Your task to perform on an android device: What's on my calendar today? Image 0: 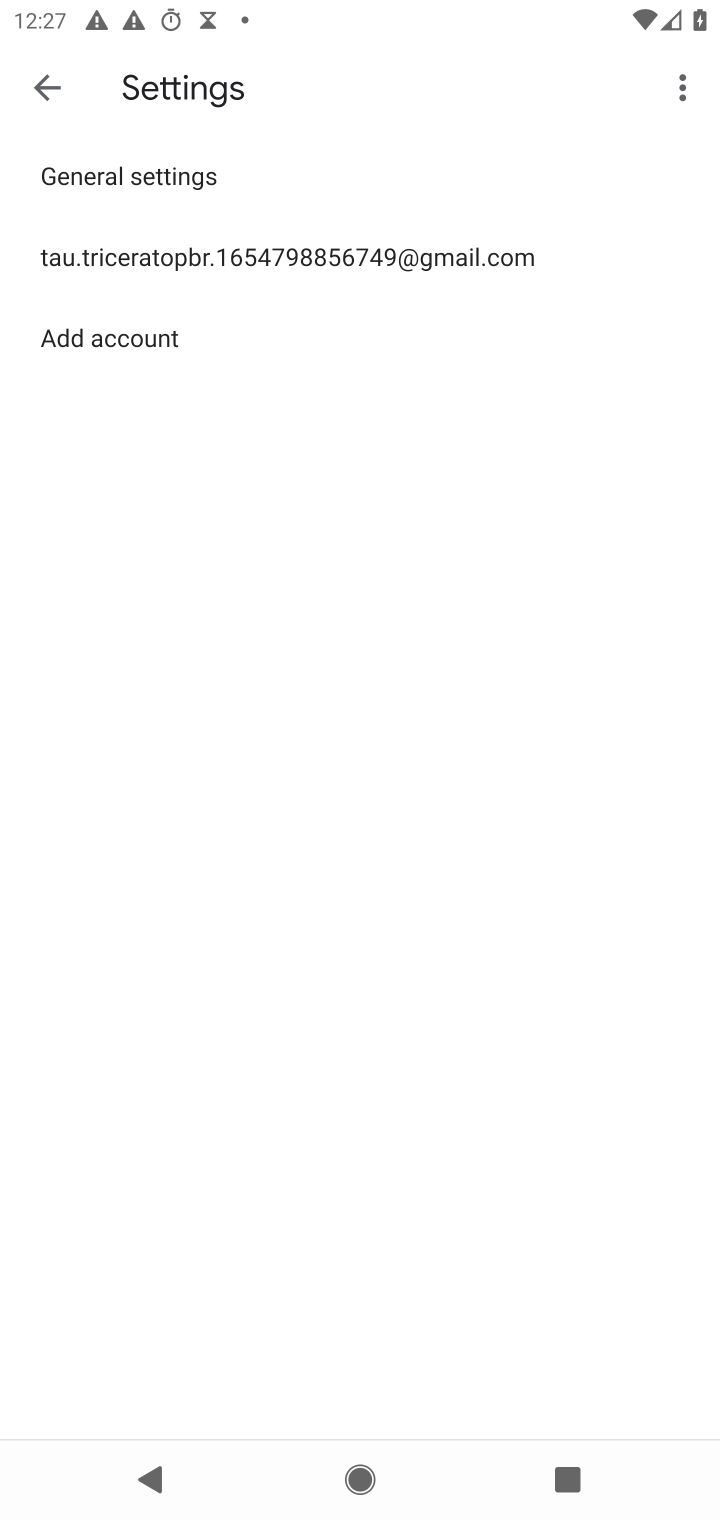
Step 0: press home button
Your task to perform on an android device: What's on my calendar today? Image 1: 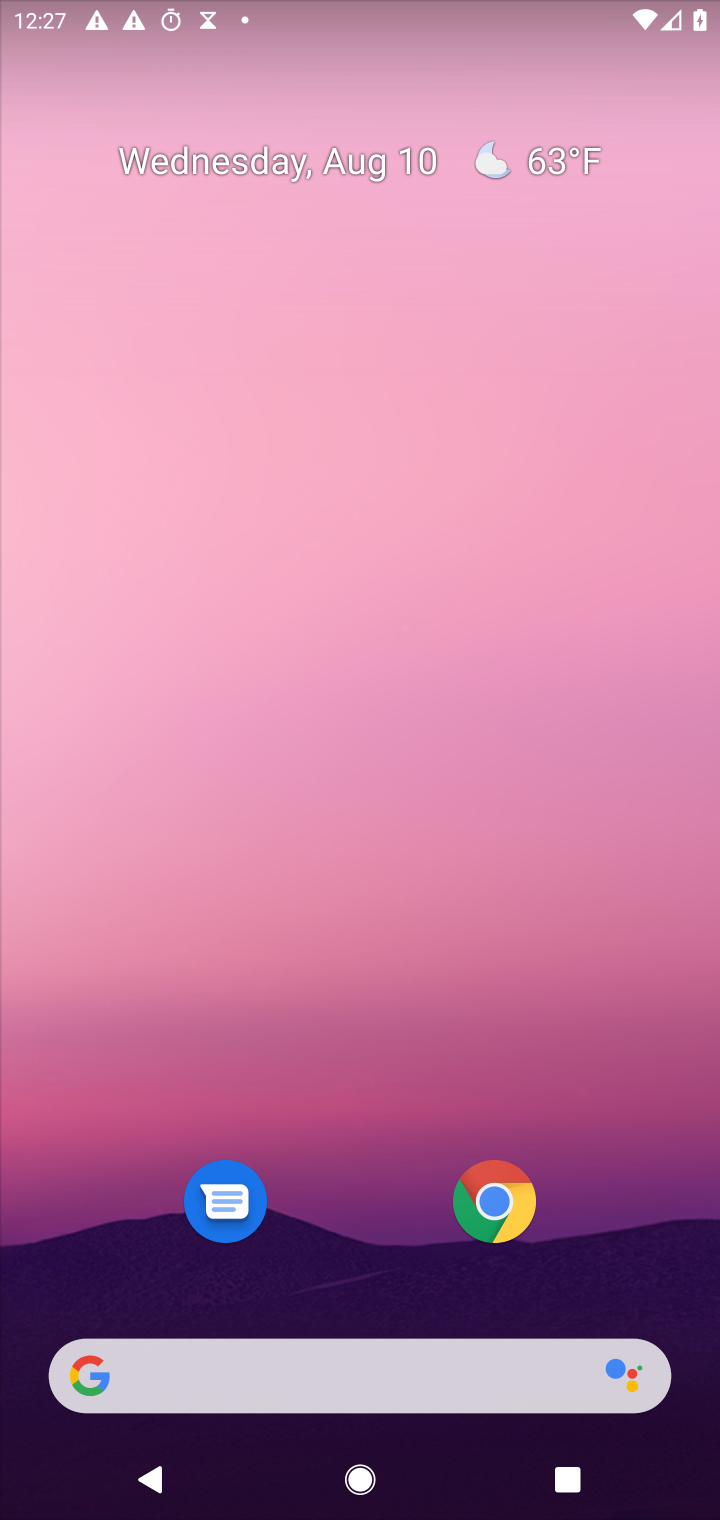
Step 1: drag from (361, 1224) to (245, 190)
Your task to perform on an android device: What's on my calendar today? Image 2: 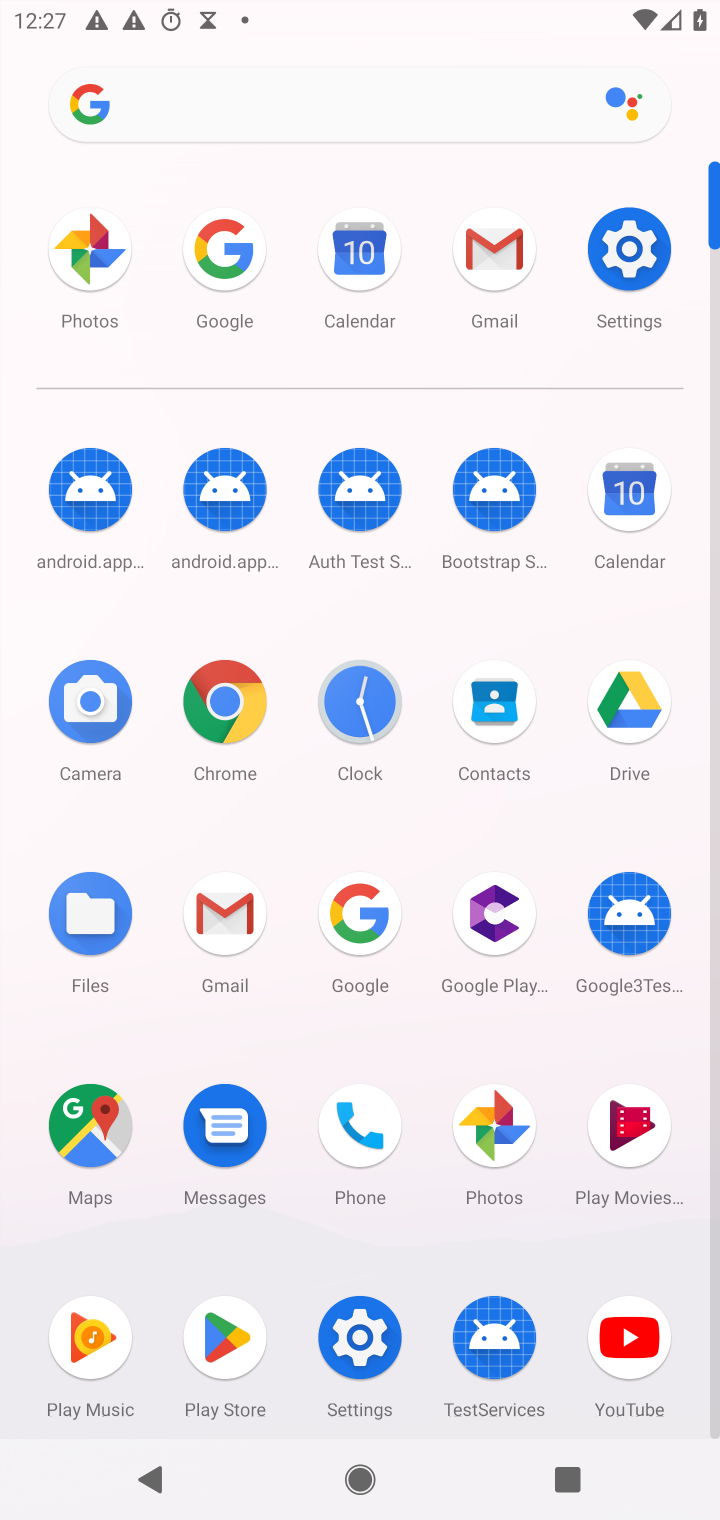
Step 2: click (626, 490)
Your task to perform on an android device: What's on my calendar today? Image 3: 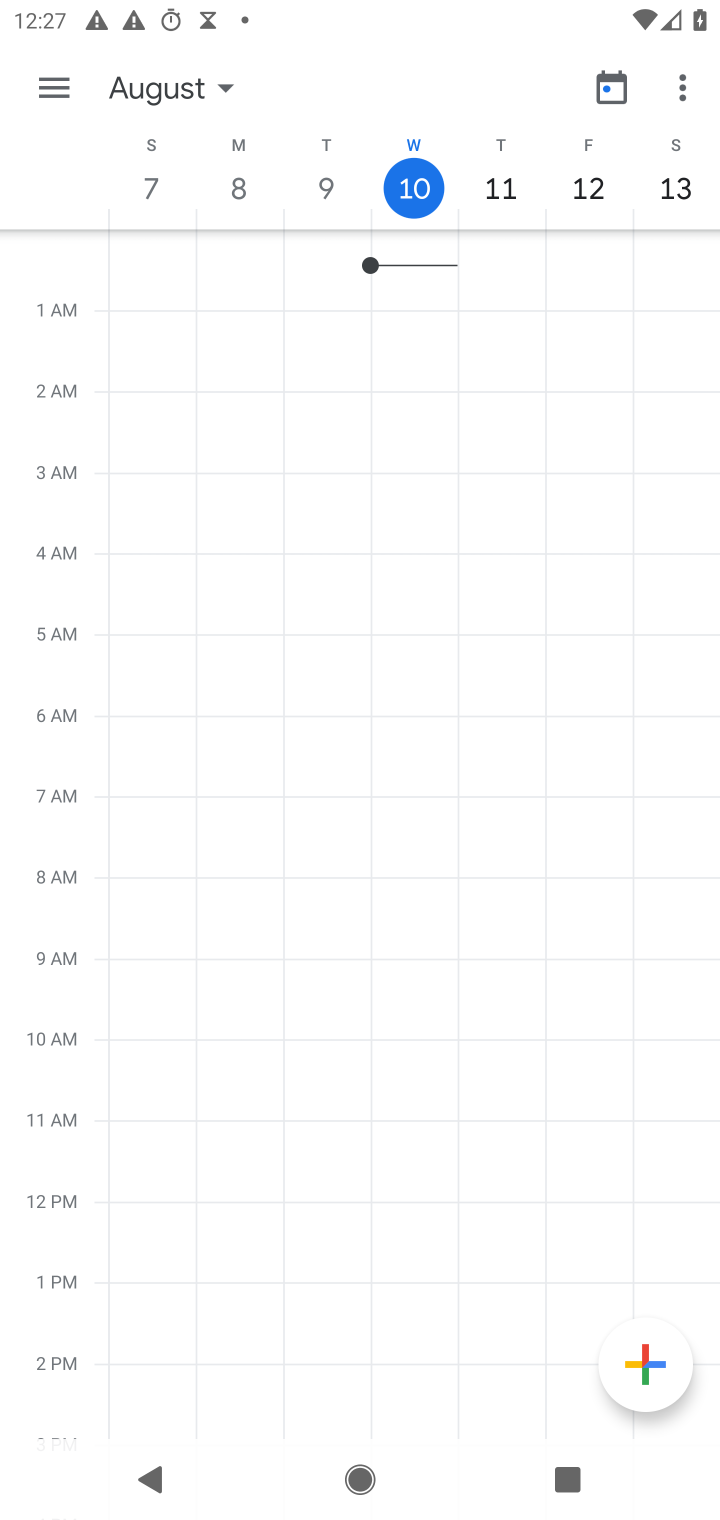
Step 3: click (423, 190)
Your task to perform on an android device: What's on my calendar today? Image 4: 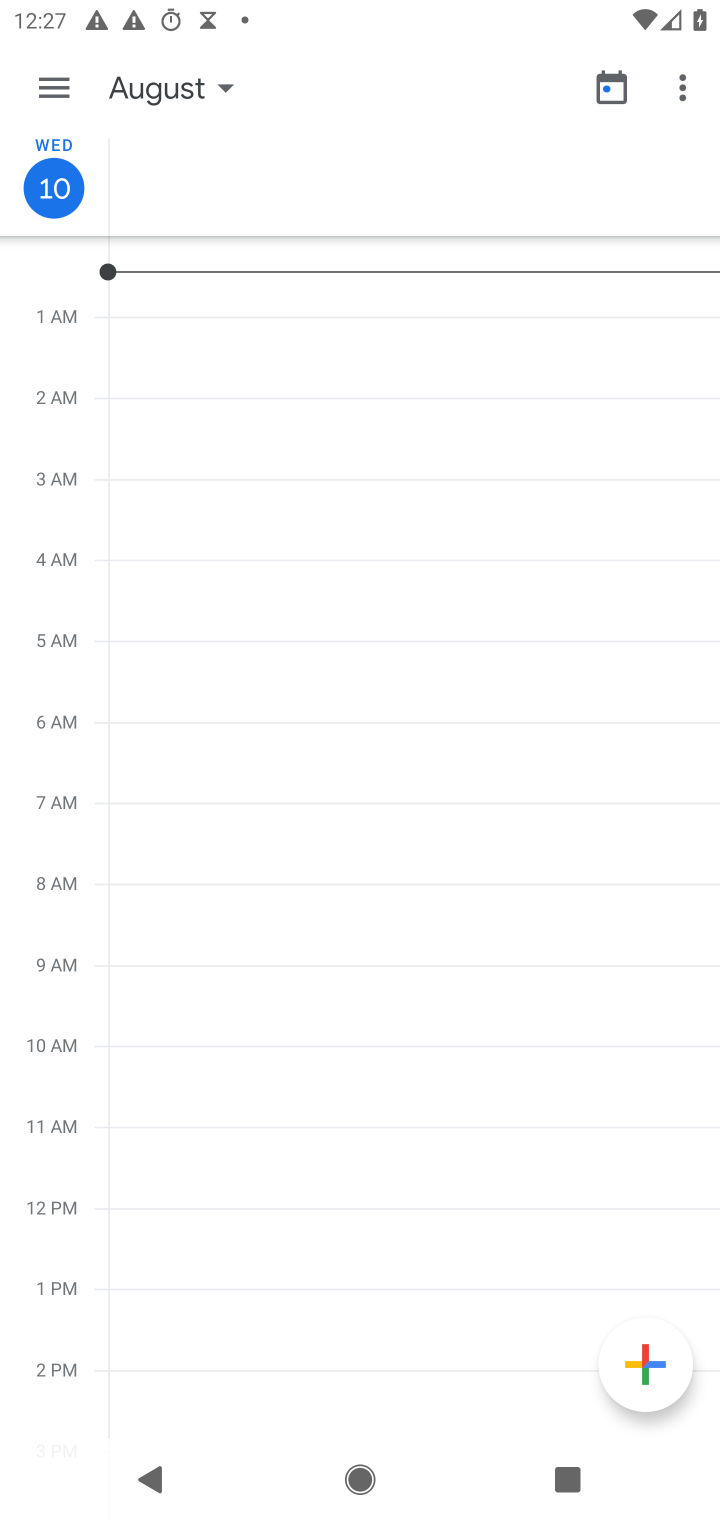
Step 4: task complete